Your task to perform on an android device: Go to Reddit.com Image 0: 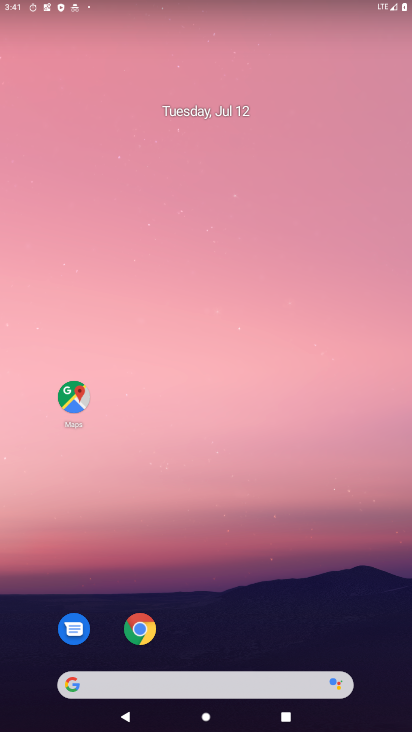
Step 0: drag from (263, 531) to (282, 72)
Your task to perform on an android device: Go to Reddit.com Image 1: 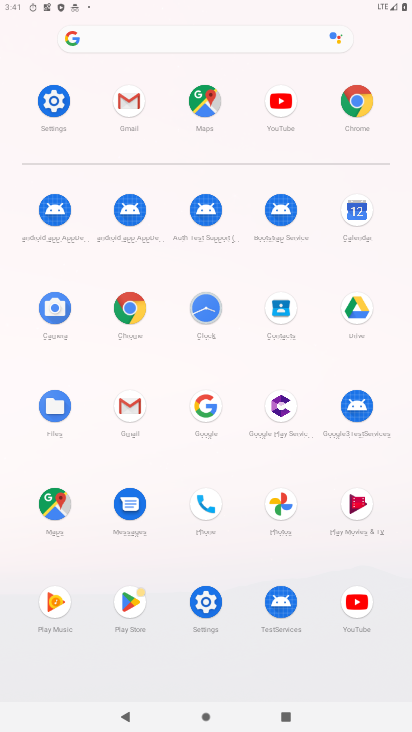
Step 1: click (127, 314)
Your task to perform on an android device: Go to Reddit.com Image 2: 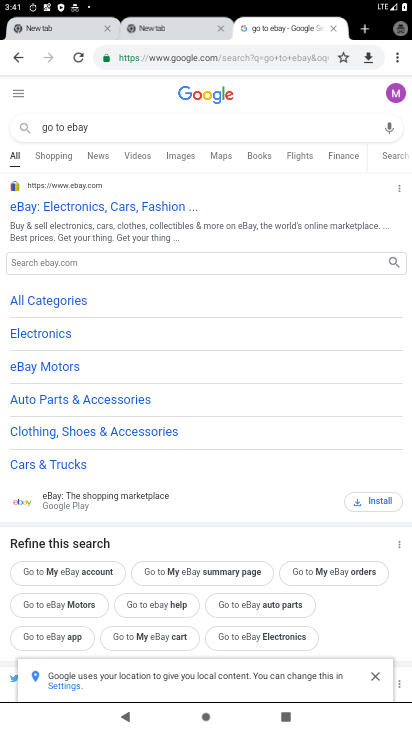
Step 2: click (196, 52)
Your task to perform on an android device: Go to Reddit.com Image 3: 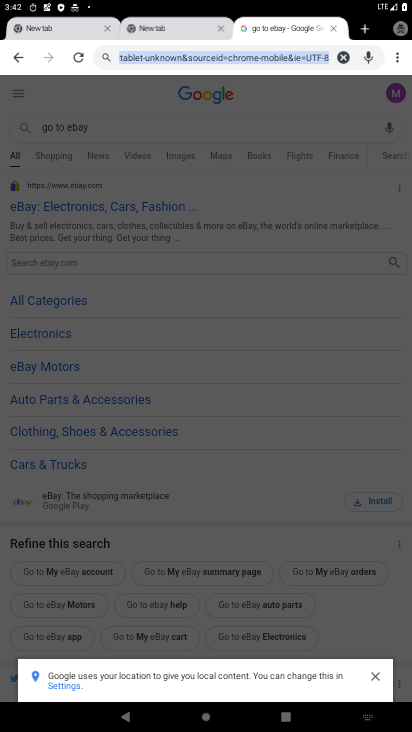
Step 3: click (350, 55)
Your task to perform on an android device: Go to Reddit.com Image 4: 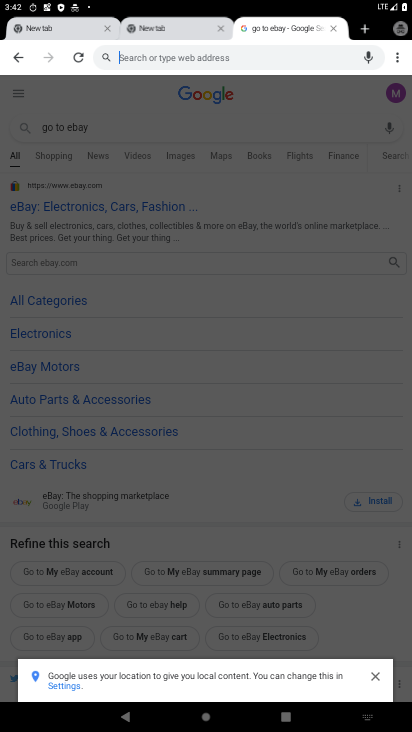
Step 4: type "Reddit.com"
Your task to perform on an android device: Go to Reddit.com Image 5: 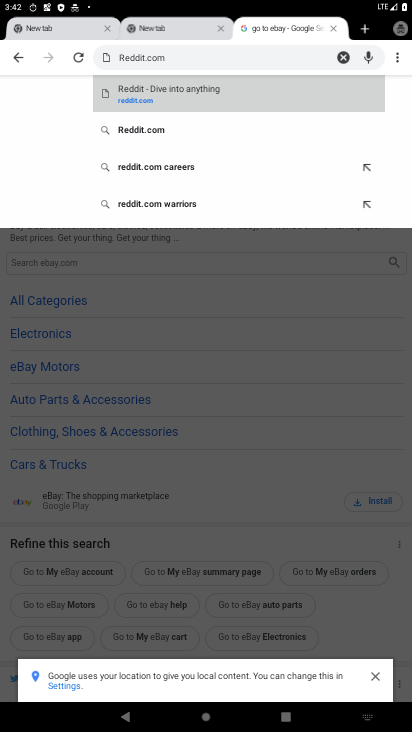
Step 5: click (140, 101)
Your task to perform on an android device: Go to Reddit.com Image 6: 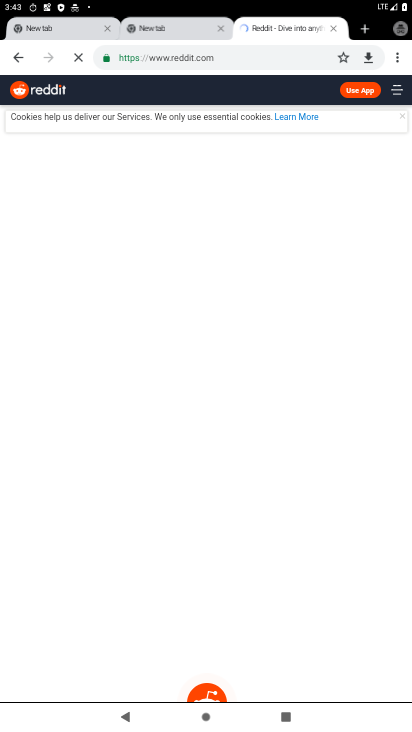
Step 6: task complete